Your task to perform on an android device: What's the weather today? Image 0: 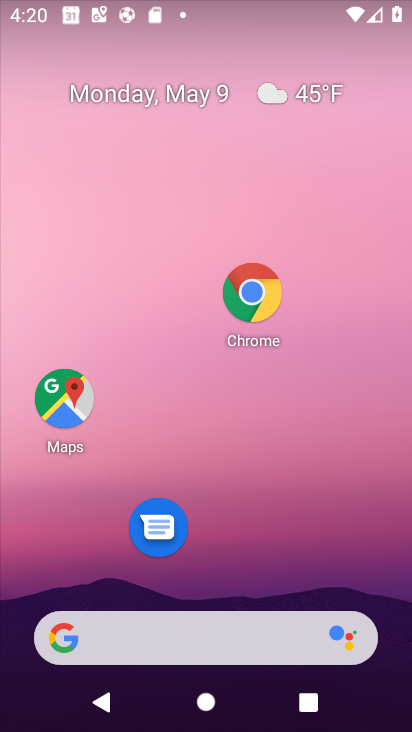
Step 0: drag from (216, 527) to (221, 47)
Your task to perform on an android device: What's the weather today? Image 1: 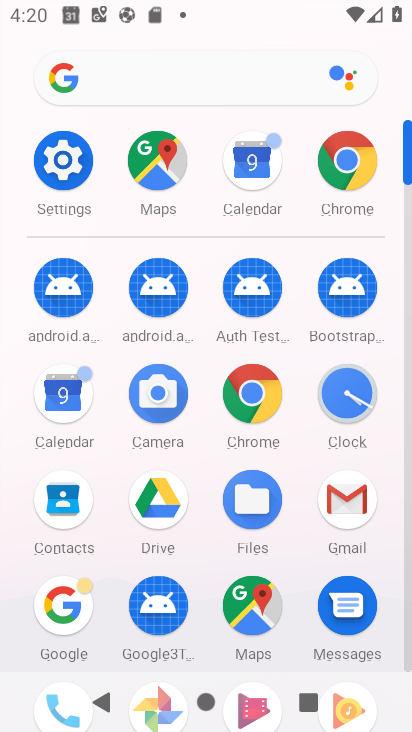
Step 1: click (60, 625)
Your task to perform on an android device: What's the weather today? Image 2: 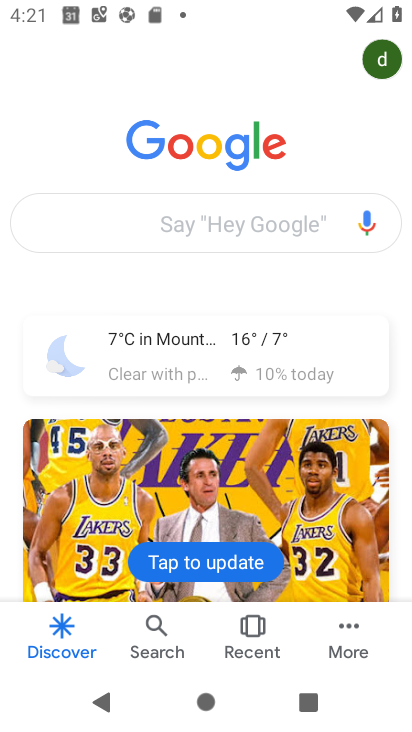
Step 2: click (260, 222)
Your task to perform on an android device: What's the weather today? Image 3: 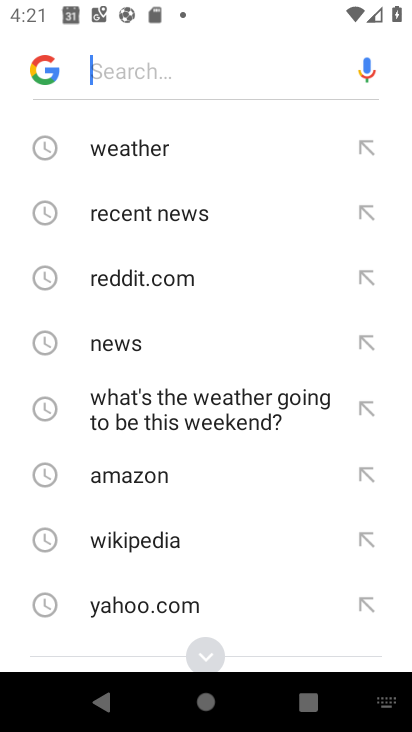
Step 3: click (234, 141)
Your task to perform on an android device: What's the weather today? Image 4: 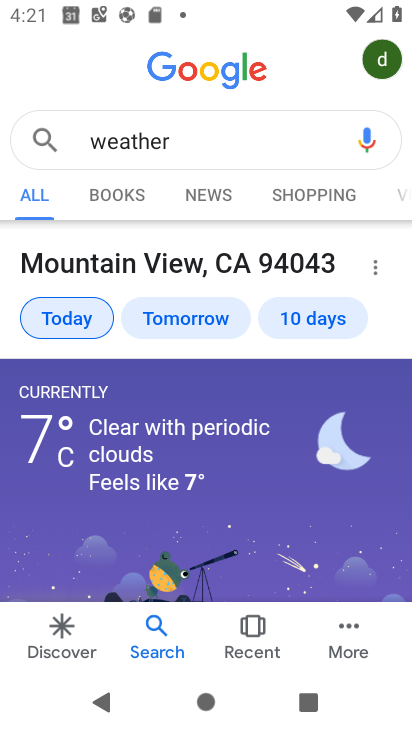
Step 4: task complete